Your task to perform on an android device: Search for the best rated 2021 Samsung Galaxy S21 Ultra on AliExpress Image 0: 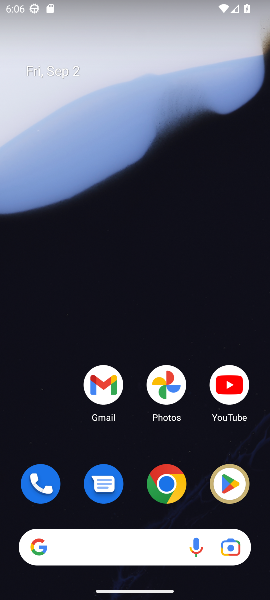
Step 0: click (164, 490)
Your task to perform on an android device: Search for the best rated 2021 Samsung Galaxy S21 Ultra on AliExpress Image 1: 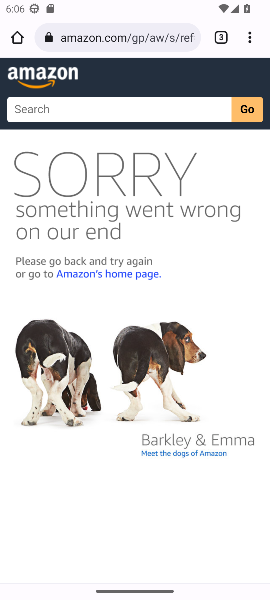
Step 1: click (161, 34)
Your task to perform on an android device: Search for the best rated 2021 Samsung Galaxy S21 Ultra on AliExpress Image 2: 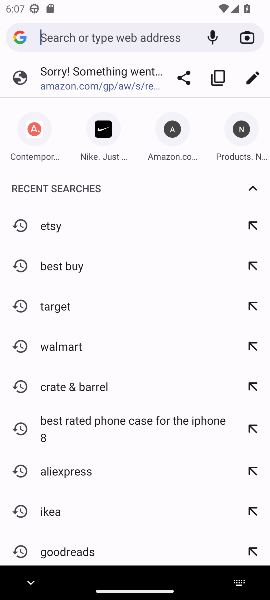
Step 2: type " AliExpress"
Your task to perform on an android device: Search for the best rated 2021 Samsung Galaxy S21 Ultra on AliExpress Image 3: 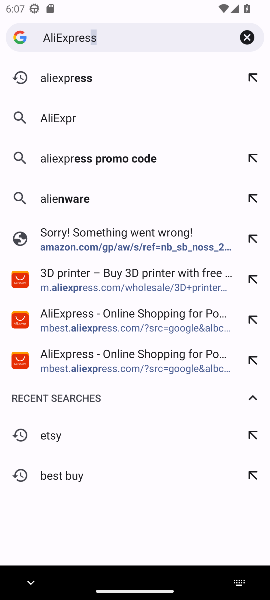
Step 3: press enter
Your task to perform on an android device: Search for the best rated 2021 Samsung Galaxy S21 Ultra on AliExpress Image 4: 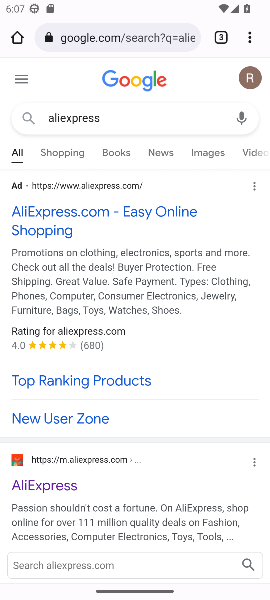
Step 4: click (46, 491)
Your task to perform on an android device: Search for the best rated 2021 Samsung Galaxy S21 Ultra on AliExpress Image 5: 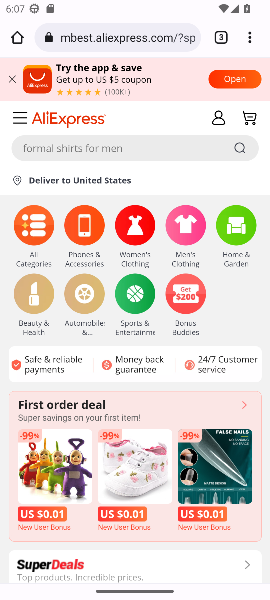
Step 5: click (121, 153)
Your task to perform on an android device: Search for the best rated 2021 Samsung Galaxy S21 Ultra on AliExpress Image 6: 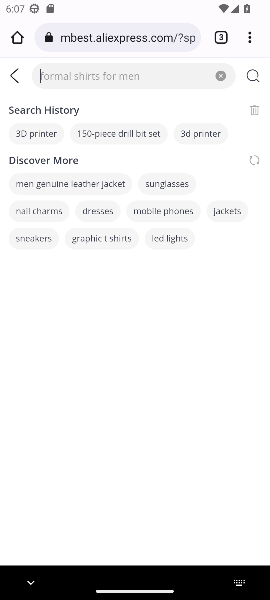
Step 6: type "2021 Samsung Galaxy S21 Ultra "
Your task to perform on an android device: Search for the best rated 2021 Samsung Galaxy S21 Ultra on AliExpress Image 7: 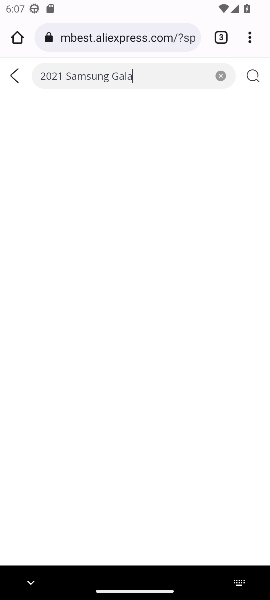
Step 7: press enter
Your task to perform on an android device: Search for the best rated 2021 Samsung Galaxy S21 Ultra on AliExpress Image 8: 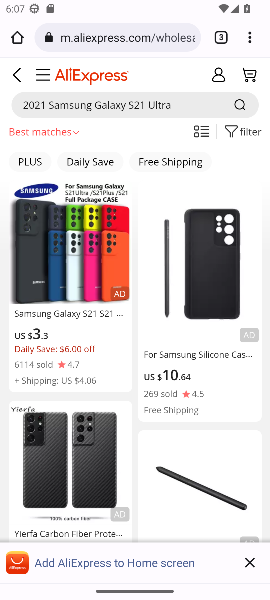
Step 8: task complete